Your task to perform on an android device: open app "Move to iOS" (install if not already installed) Image 0: 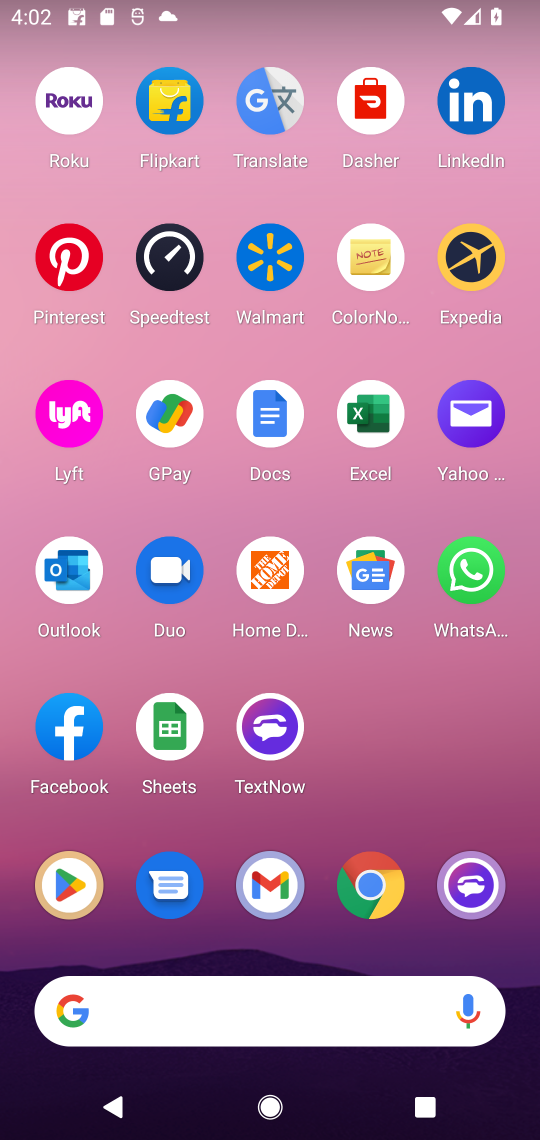
Step 0: click (67, 880)
Your task to perform on an android device: open app "Move to iOS" (install if not already installed) Image 1: 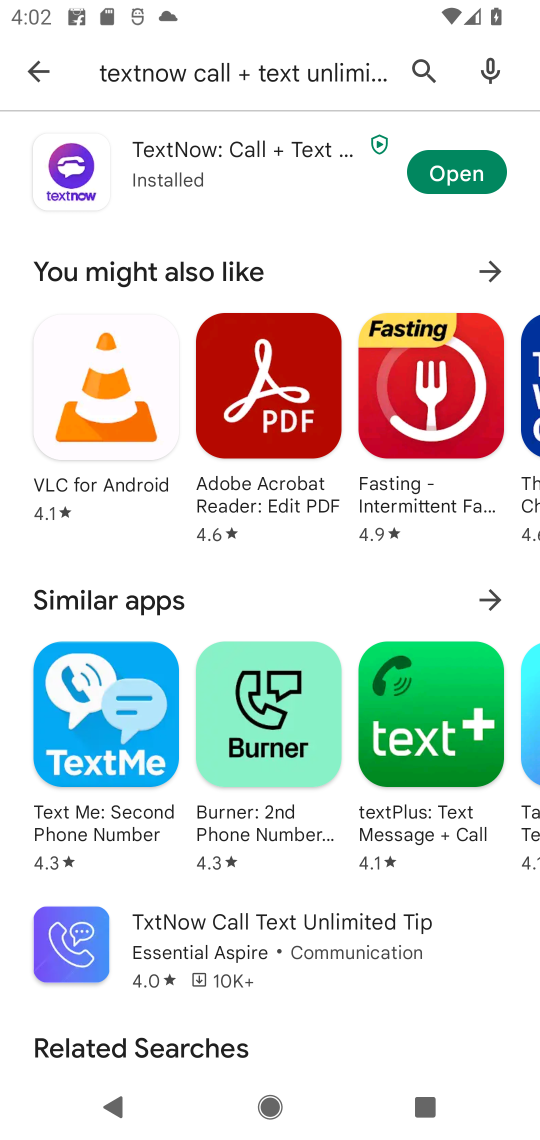
Step 1: click (434, 66)
Your task to perform on an android device: open app "Move to iOS" (install if not already installed) Image 2: 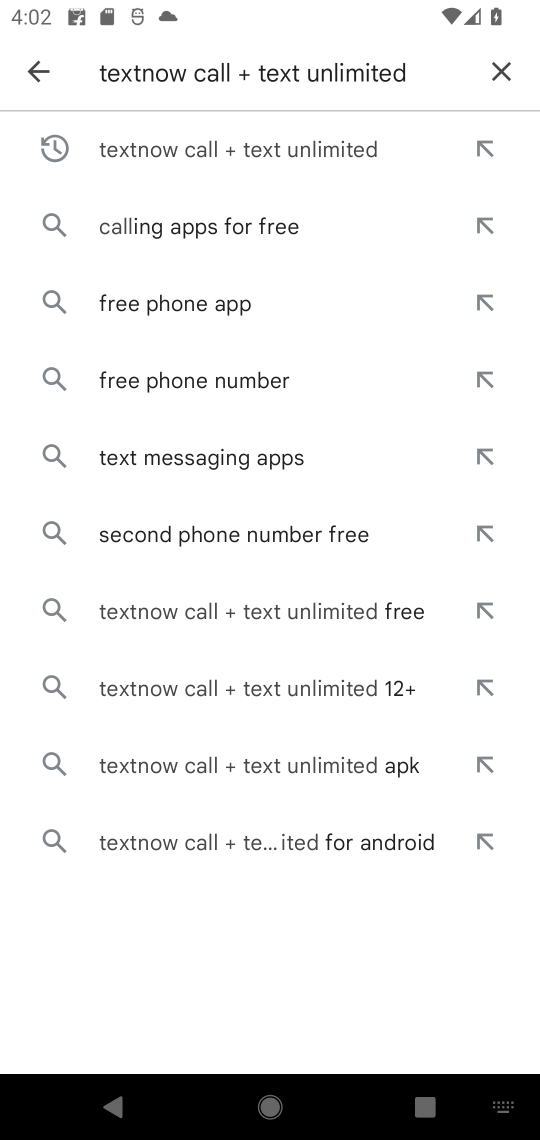
Step 2: click (505, 80)
Your task to perform on an android device: open app "Move to iOS" (install if not already installed) Image 3: 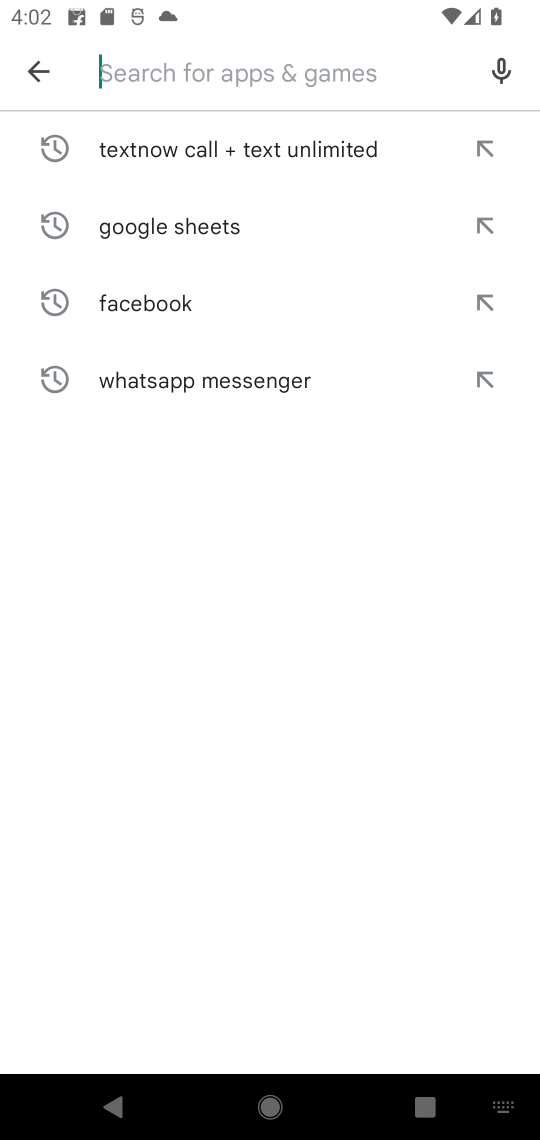
Step 3: click (310, 80)
Your task to perform on an android device: open app "Move to iOS" (install if not already installed) Image 4: 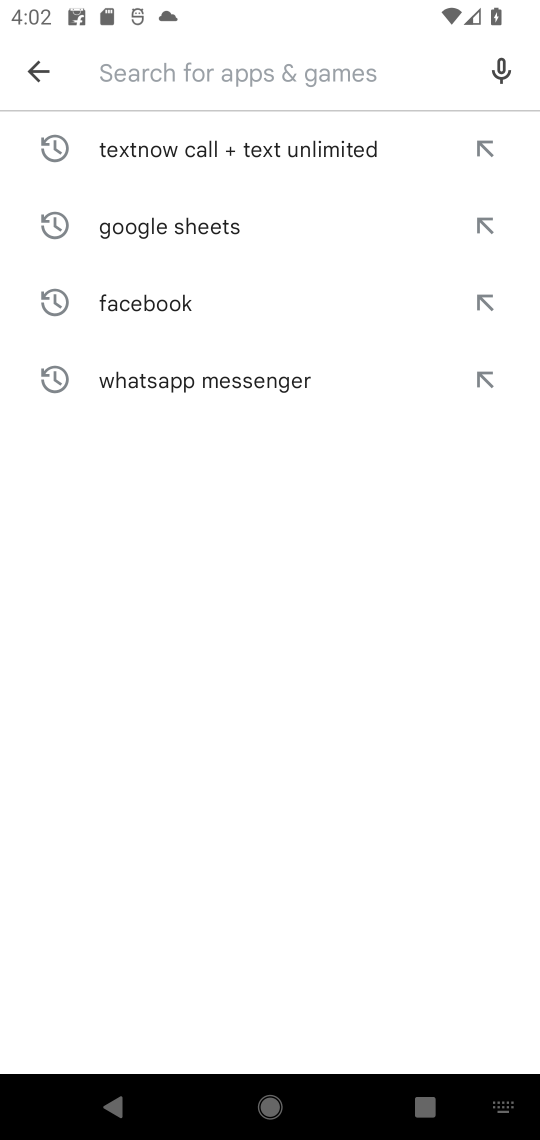
Step 4: type "Move to iOS"
Your task to perform on an android device: open app "Move to iOS" (install if not already installed) Image 5: 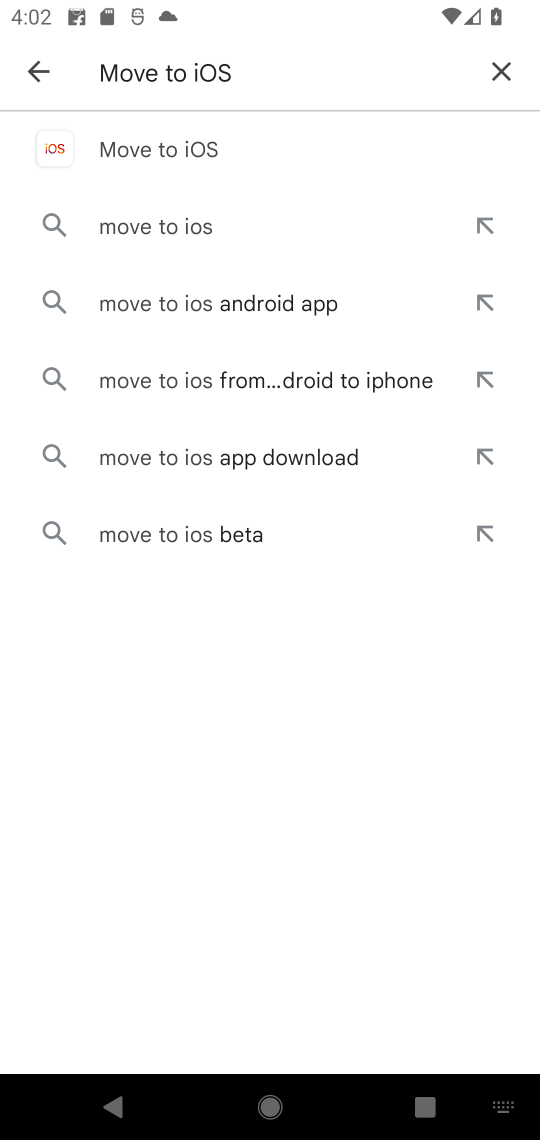
Step 5: click (191, 139)
Your task to perform on an android device: open app "Move to iOS" (install if not already installed) Image 6: 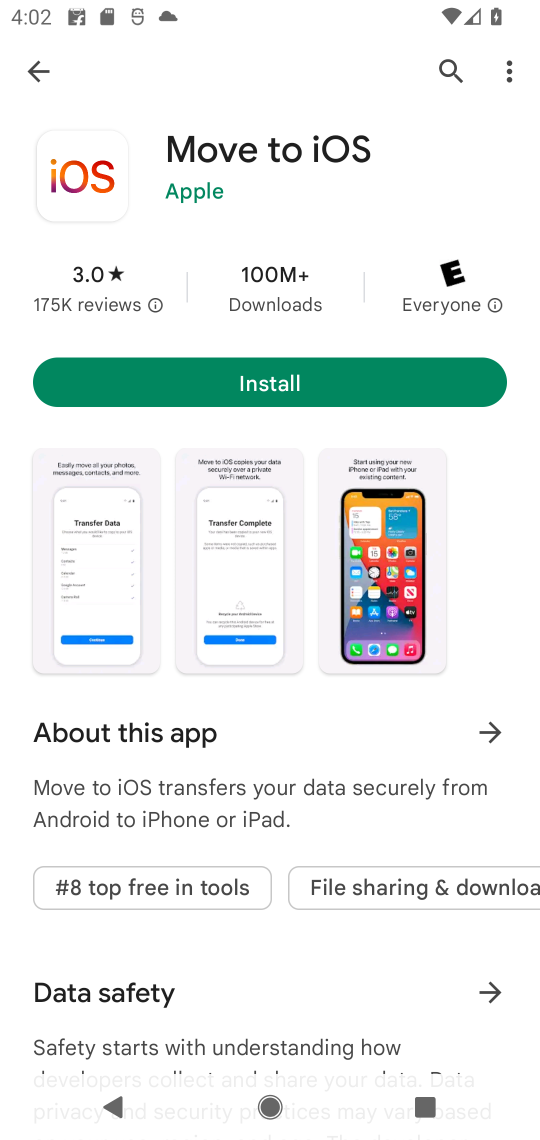
Step 6: click (167, 386)
Your task to perform on an android device: open app "Move to iOS" (install if not already installed) Image 7: 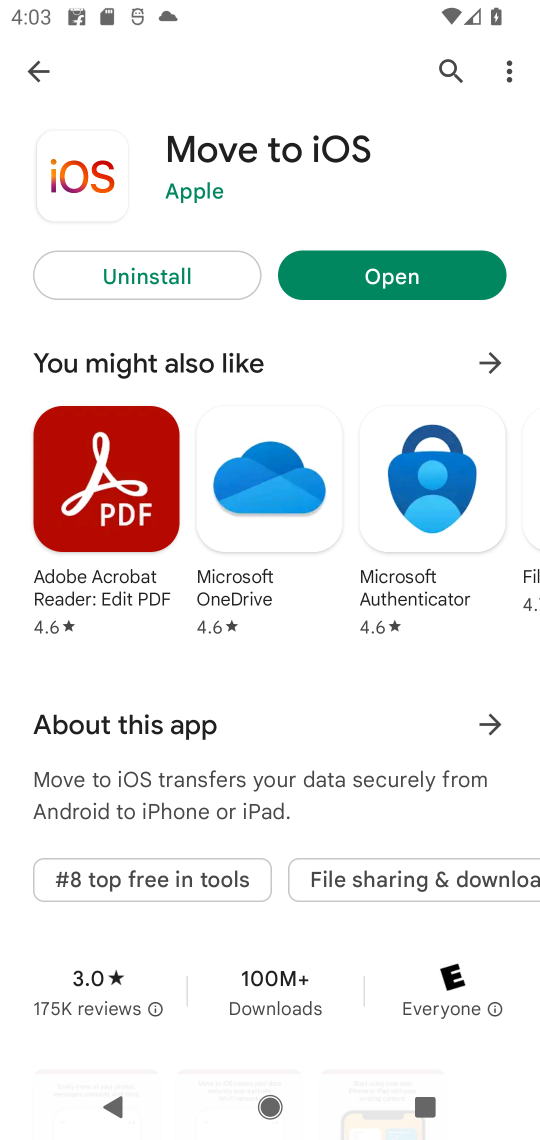
Step 7: click (410, 277)
Your task to perform on an android device: open app "Move to iOS" (install if not already installed) Image 8: 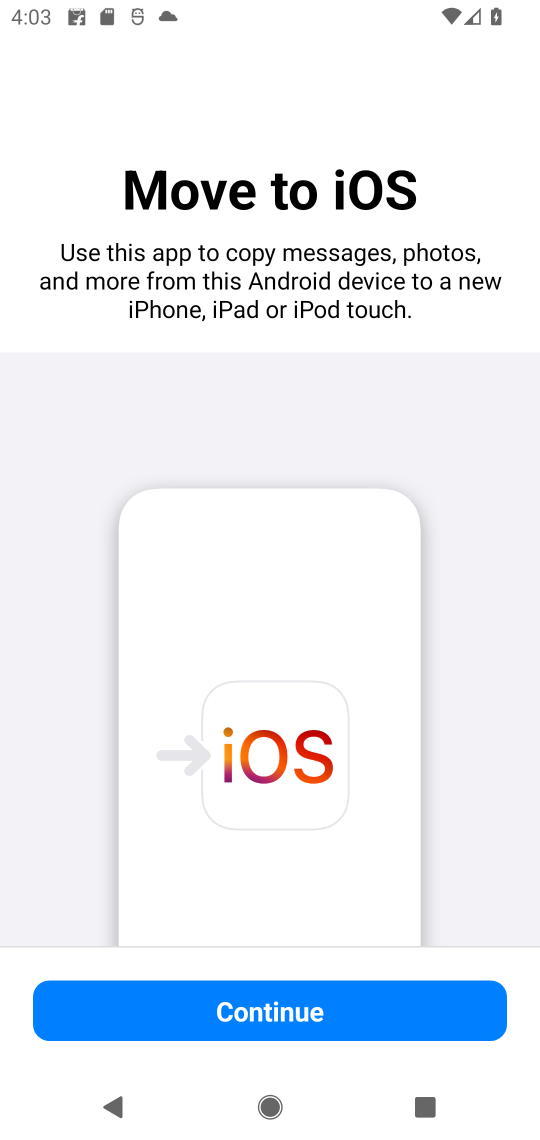
Step 8: click (423, 1022)
Your task to perform on an android device: open app "Move to iOS" (install if not already installed) Image 9: 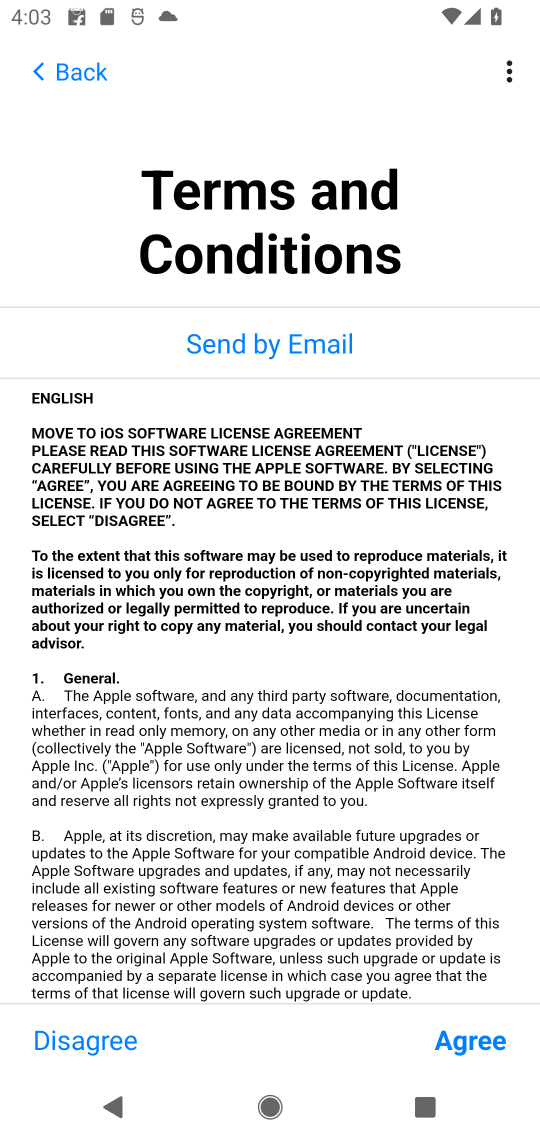
Step 9: click (454, 1040)
Your task to perform on an android device: open app "Move to iOS" (install if not already installed) Image 10: 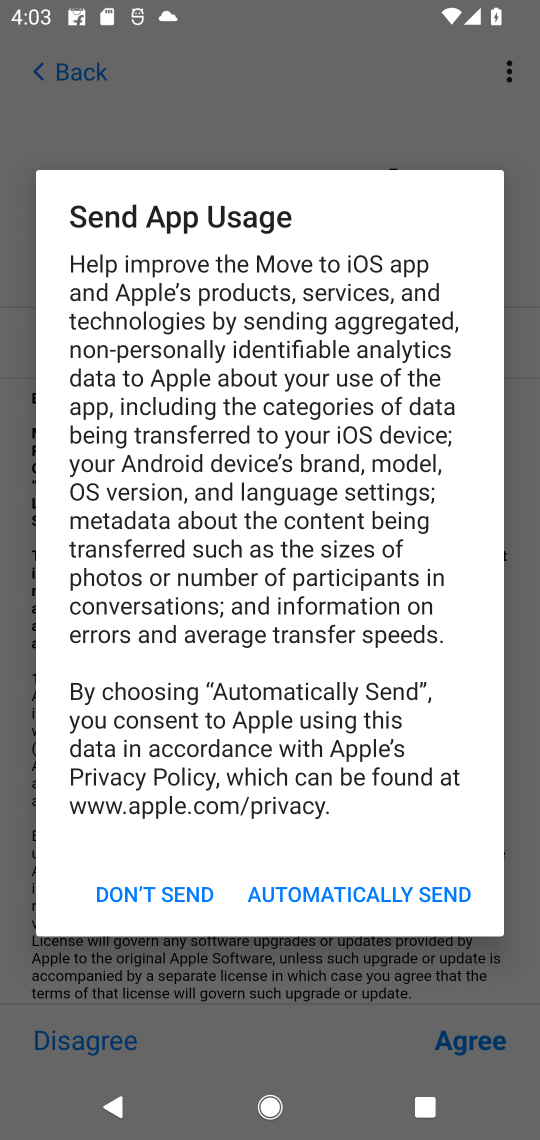
Step 10: click (166, 887)
Your task to perform on an android device: open app "Move to iOS" (install if not already installed) Image 11: 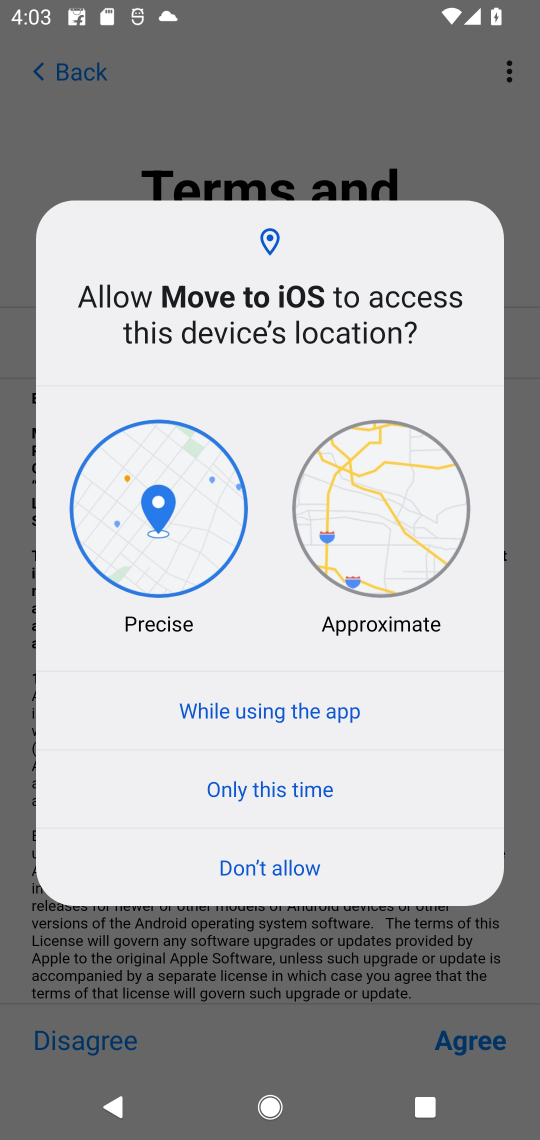
Step 11: task complete